Your task to perform on an android device: Open the calendar app, open the side menu, and click the "Day" option Image 0: 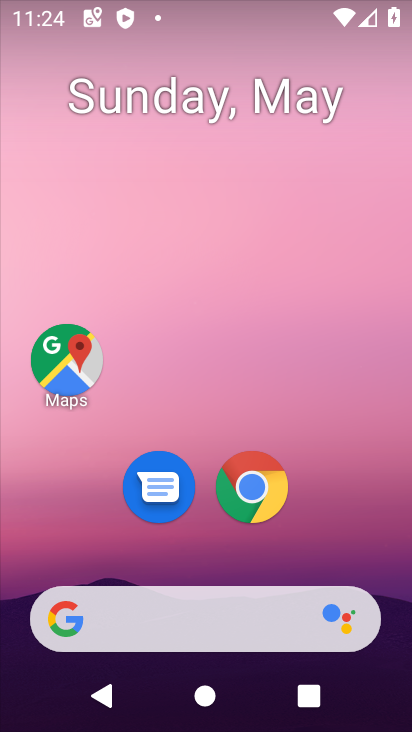
Step 0: drag from (370, 540) to (381, 103)
Your task to perform on an android device: Open the calendar app, open the side menu, and click the "Day" option Image 1: 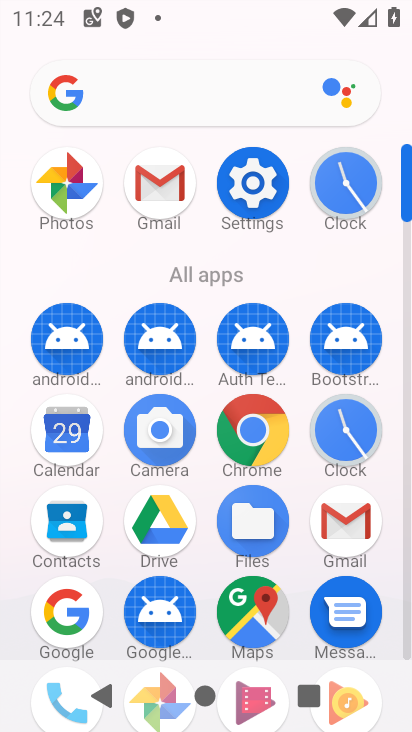
Step 1: click (60, 439)
Your task to perform on an android device: Open the calendar app, open the side menu, and click the "Day" option Image 2: 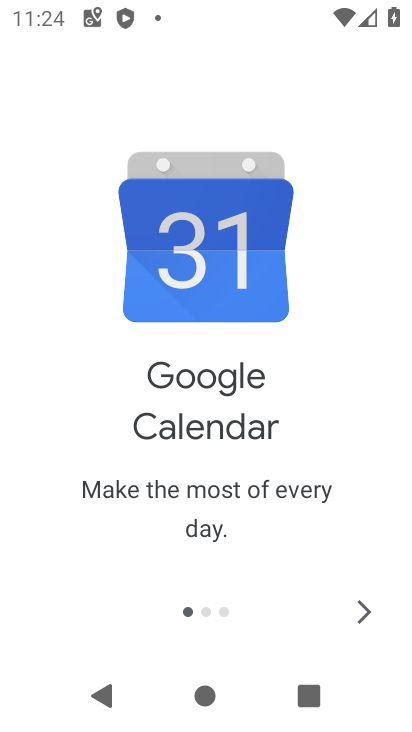
Step 2: click (358, 625)
Your task to perform on an android device: Open the calendar app, open the side menu, and click the "Day" option Image 3: 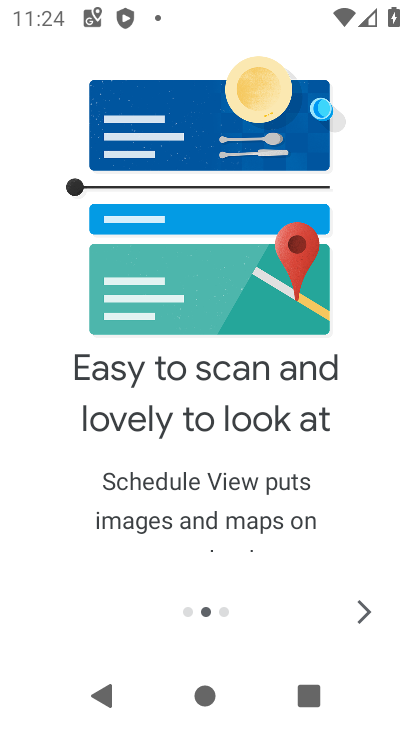
Step 3: click (366, 613)
Your task to perform on an android device: Open the calendar app, open the side menu, and click the "Day" option Image 4: 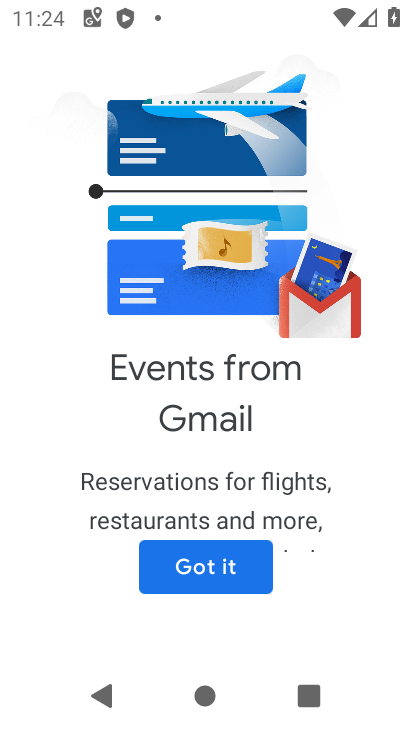
Step 4: click (231, 578)
Your task to perform on an android device: Open the calendar app, open the side menu, and click the "Day" option Image 5: 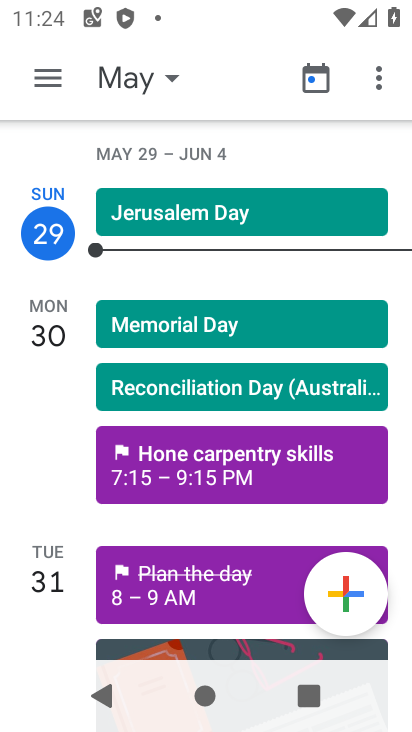
Step 5: click (56, 85)
Your task to perform on an android device: Open the calendar app, open the side menu, and click the "Day" option Image 6: 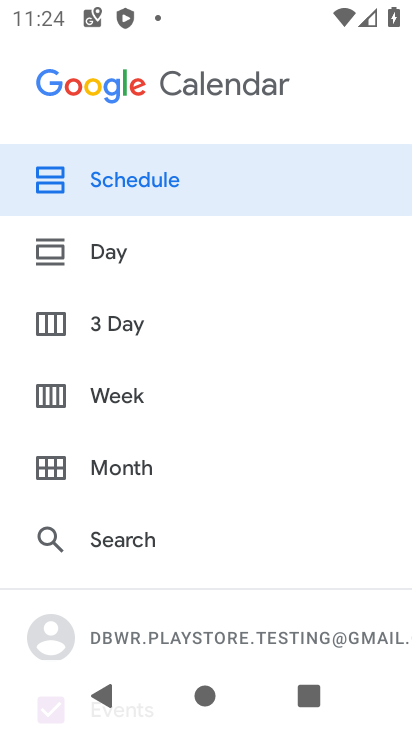
Step 6: click (140, 264)
Your task to perform on an android device: Open the calendar app, open the side menu, and click the "Day" option Image 7: 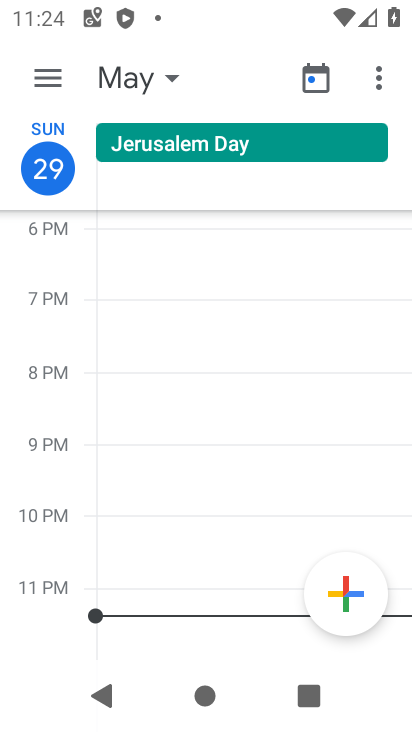
Step 7: task complete